Your task to perform on an android device: Show the shopping cart on amazon.com. Search for "logitech g pro" on amazon.com, select the first entry, and add it to the cart. Image 0: 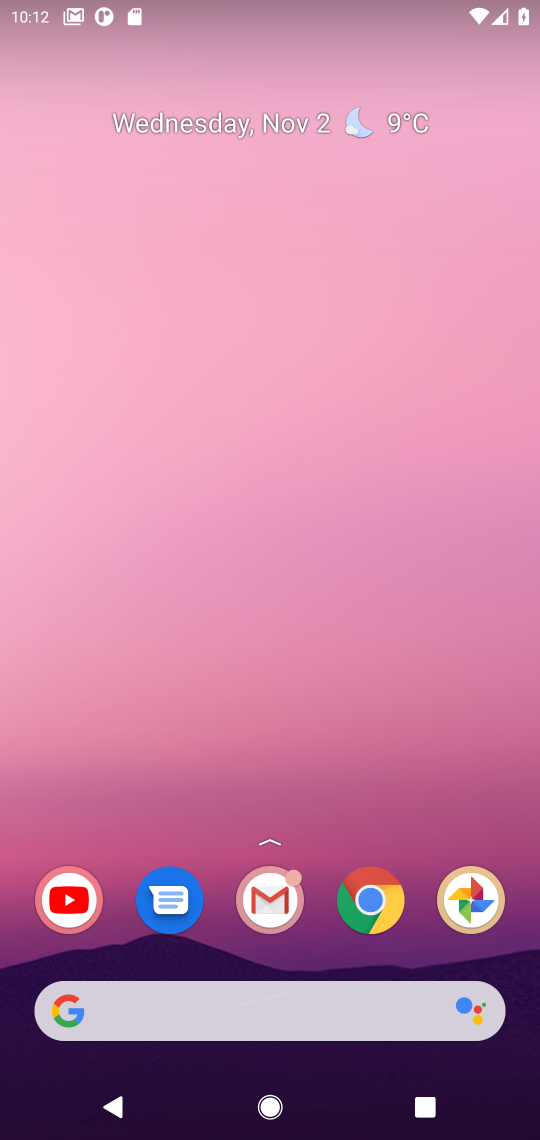
Step 0: click (356, 925)
Your task to perform on an android device: Show the shopping cart on amazon.com. Search for "logitech g pro" on amazon.com, select the first entry, and add it to the cart. Image 1: 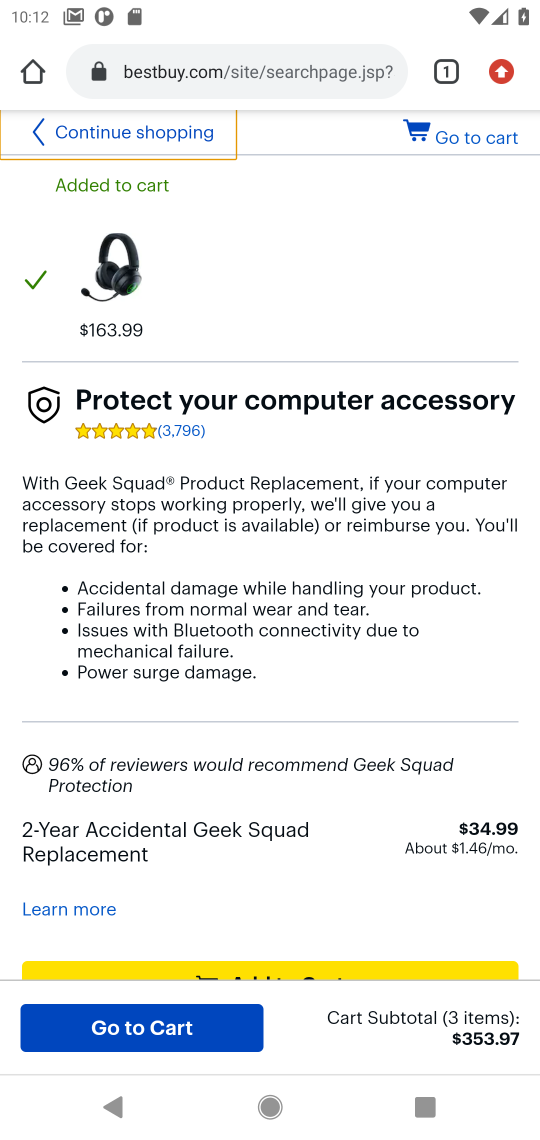
Step 1: click (152, 67)
Your task to perform on an android device: Show the shopping cart on amazon.com. Search for "logitech g pro" on amazon.com, select the first entry, and add it to the cart. Image 2: 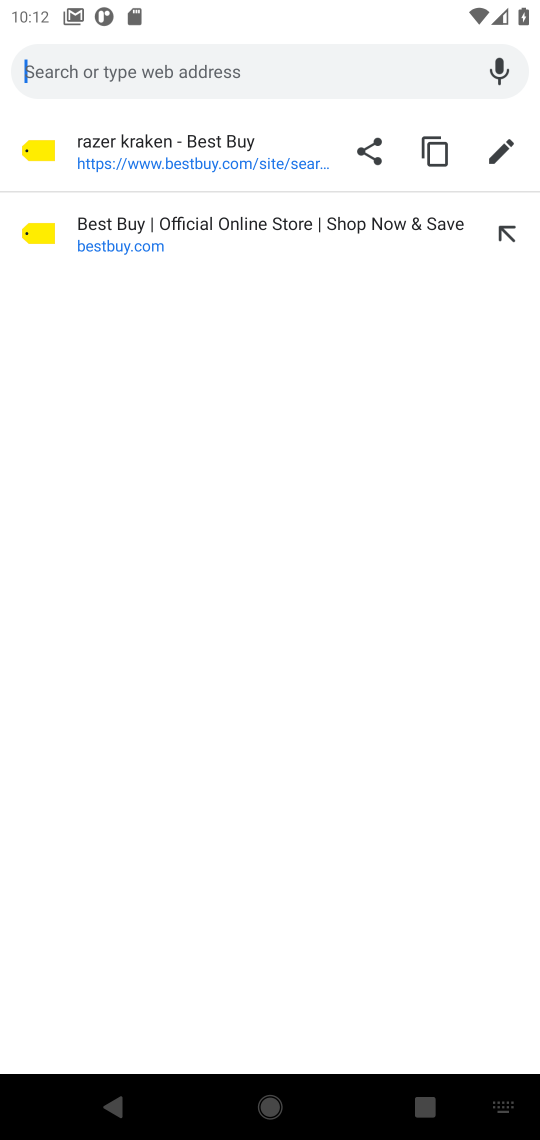
Step 2: type "amazon"
Your task to perform on an android device: Show the shopping cart on amazon.com. Search for "logitech g pro" on amazon.com, select the first entry, and add it to the cart. Image 3: 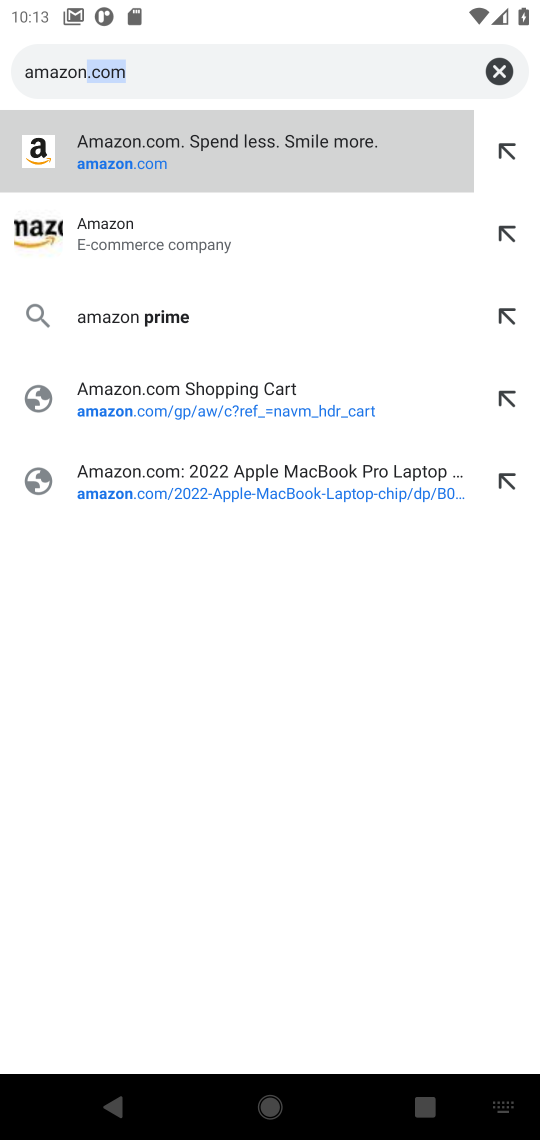
Step 3: click (182, 235)
Your task to perform on an android device: Show the shopping cart on amazon.com. Search for "logitech g pro" on amazon.com, select the first entry, and add it to the cart. Image 4: 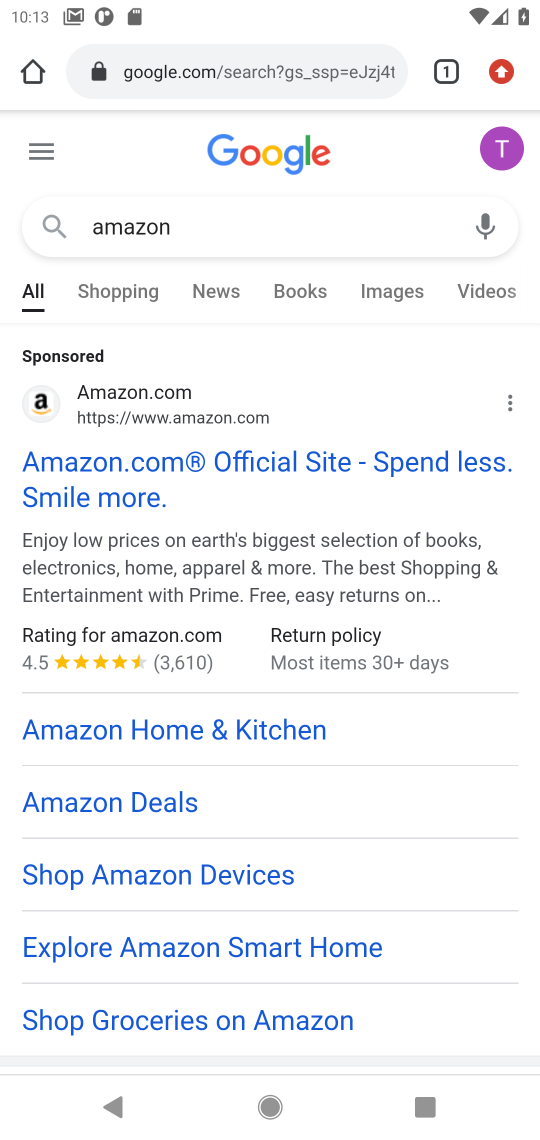
Step 4: click (203, 459)
Your task to perform on an android device: Show the shopping cart on amazon.com. Search for "logitech g pro" on amazon.com, select the first entry, and add it to the cart. Image 5: 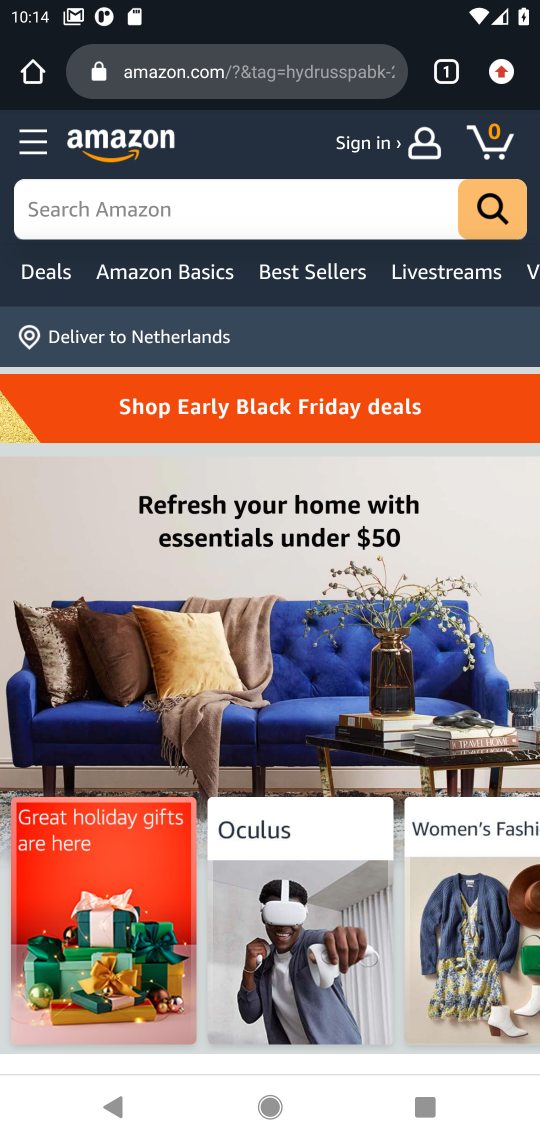
Step 5: click (502, 146)
Your task to perform on an android device: Show the shopping cart on amazon.com. Search for "logitech g pro" on amazon.com, select the first entry, and add it to the cart. Image 6: 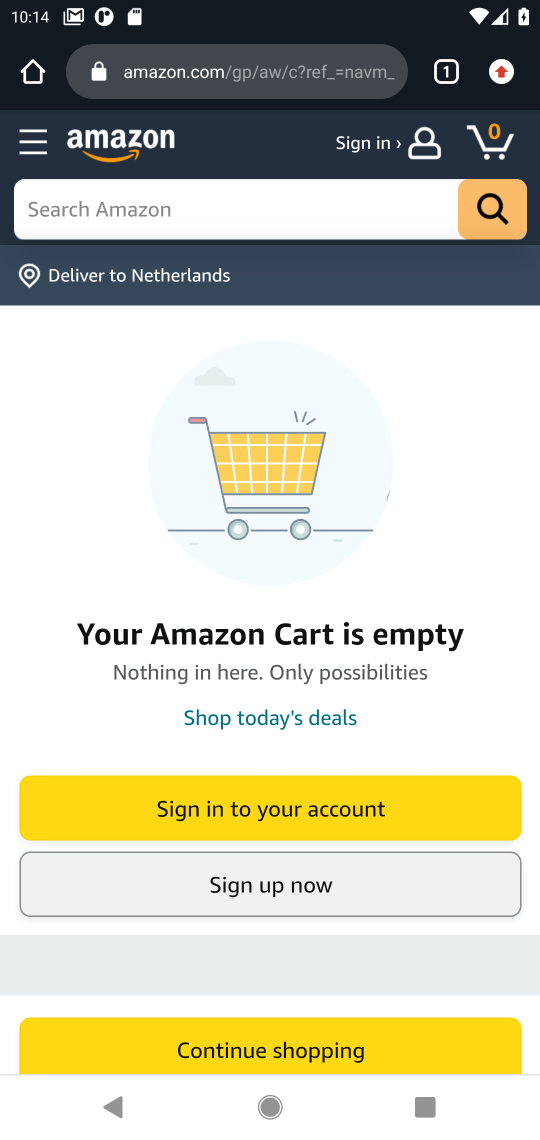
Step 6: click (86, 235)
Your task to perform on an android device: Show the shopping cart on amazon.com. Search for "logitech g pro" on amazon.com, select the first entry, and add it to the cart. Image 7: 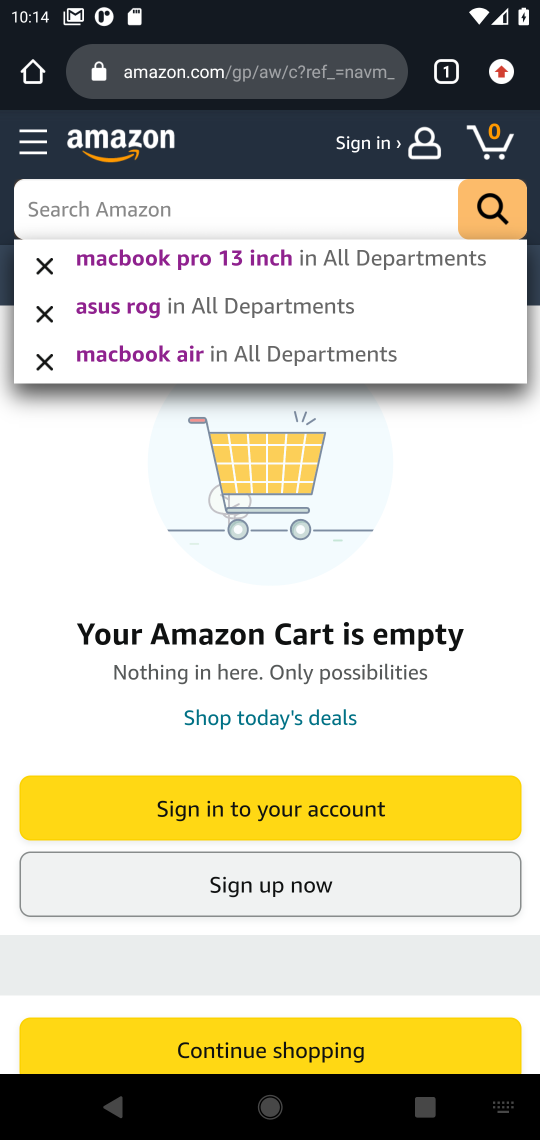
Step 7: type "logitech g pro"
Your task to perform on an android device: Show the shopping cart on amazon.com. Search for "logitech g pro" on amazon.com, select the first entry, and add it to the cart. Image 8: 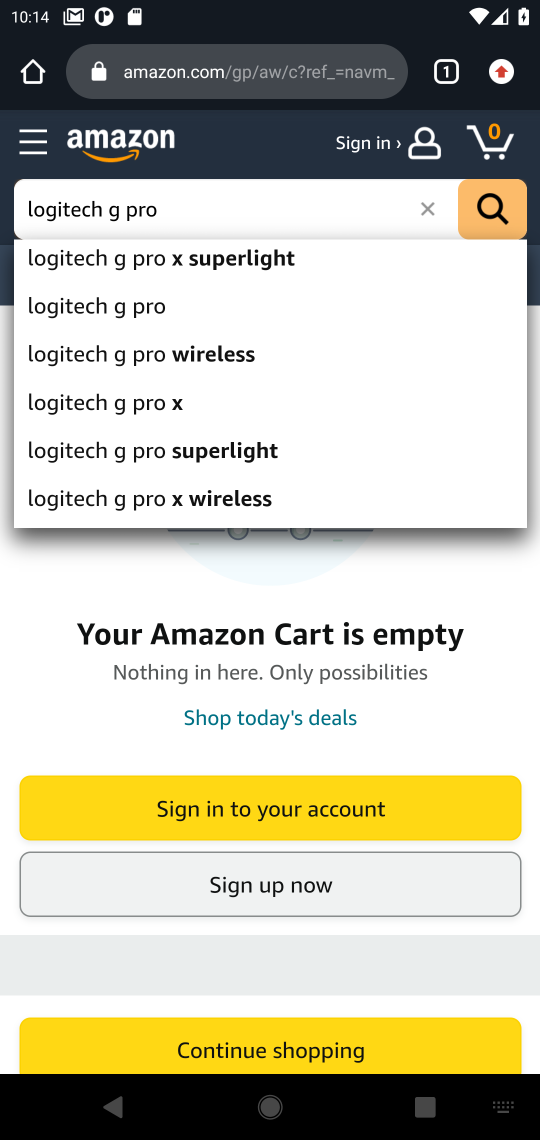
Step 8: click (502, 221)
Your task to perform on an android device: Show the shopping cart on amazon.com. Search for "logitech g pro" on amazon.com, select the first entry, and add it to the cart. Image 9: 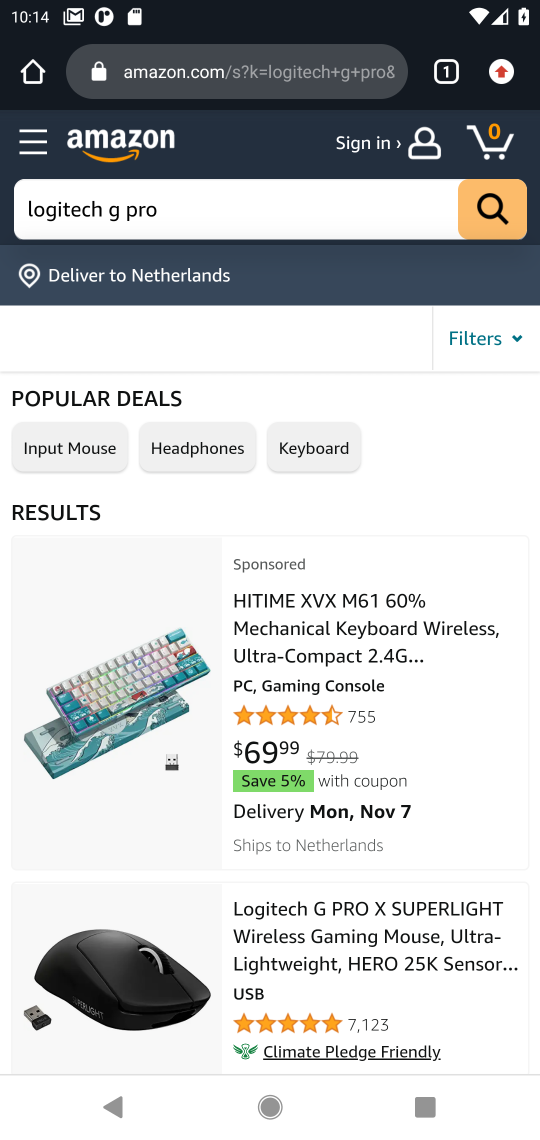
Step 9: click (301, 942)
Your task to perform on an android device: Show the shopping cart on amazon.com. Search for "logitech g pro" on amazon.com, select the first entry, and add it to the cart. Image 10: 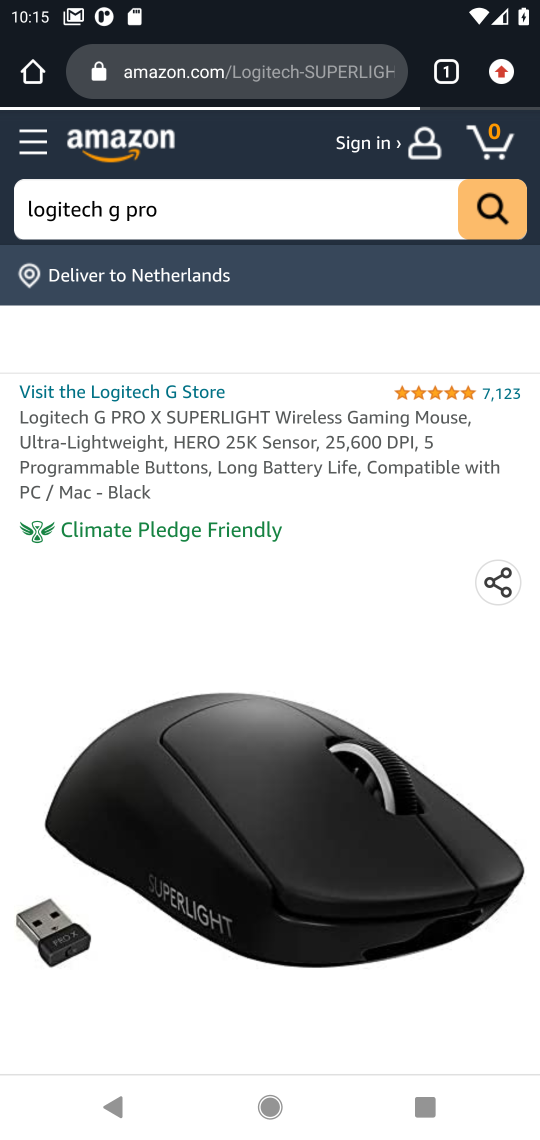
Step 10: drag from (195, 1014) to (258, 354)
Your task to perform on an android device: Show the shopping cart on amazon.com. Search for "logitech g pro" on amazon.com, select the first entry, and add it to the cart. Image 11: 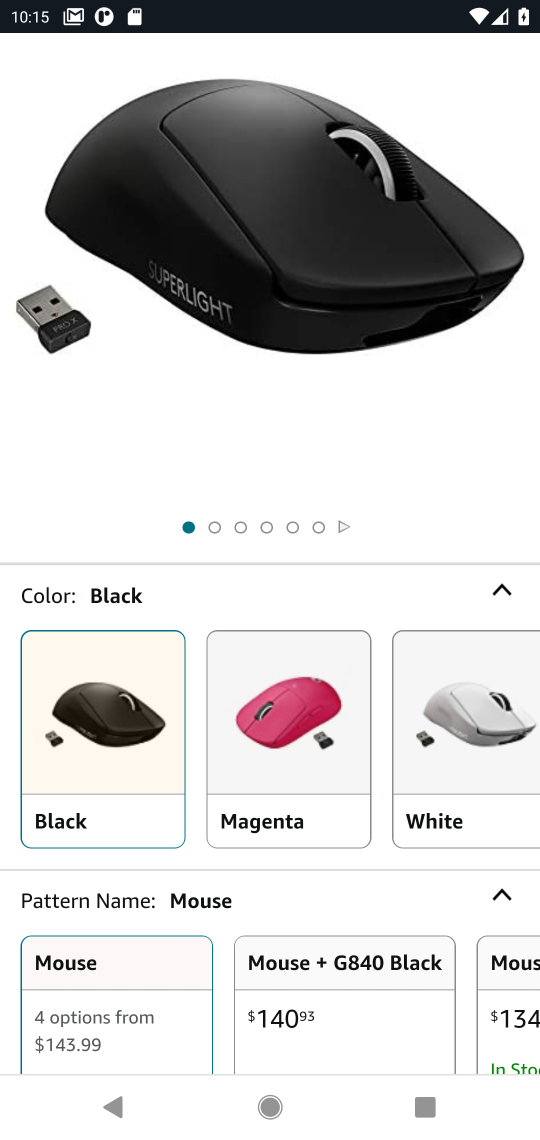
Step 11: drag from (324, 905) to (415, 178)
Your task to perform on an android device: Show the shopping cart on amazon.com. Search for "logitech g pro" on amazon.com, select the first entry, and add it to the cart. Image 12: 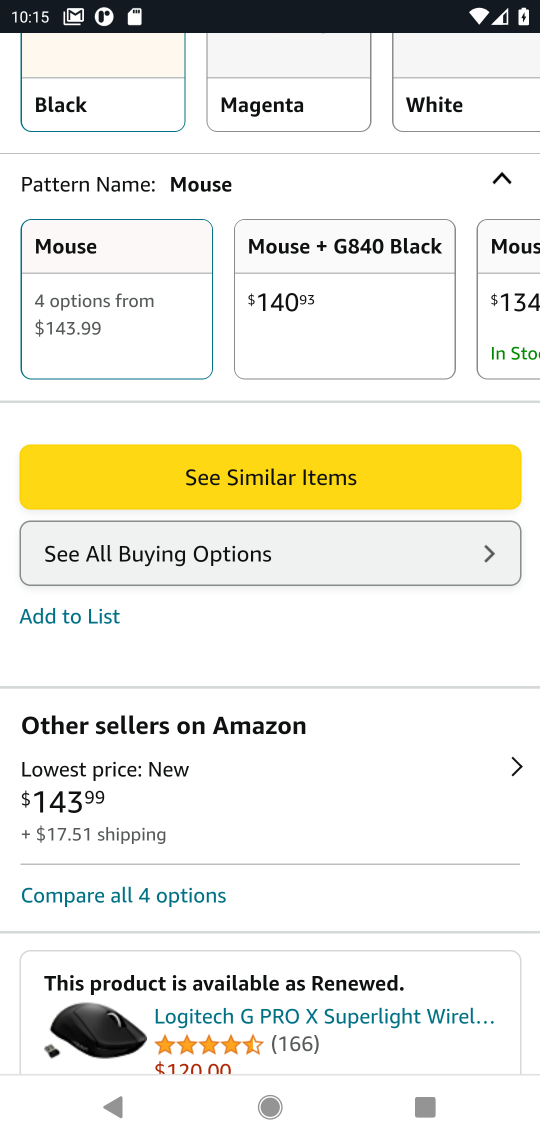
Step 12: drag from (249, 820) to (283, 188)
Your task to perform on an android device: Show the shopping cart on amazon.com. Search for "logitech g pro" on amazon.com, select the first entry, and add it to the cart. Image 13: 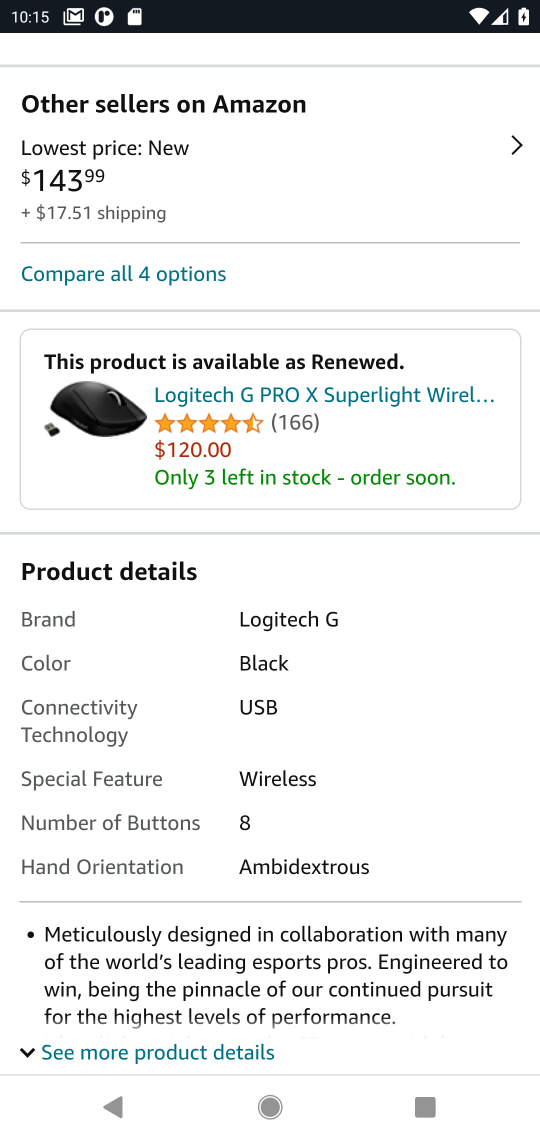
Step 13: click (230, 390)
Your task to perform on an android device: Show the shopping cart on amazon.com. Search for "logitech g pro" on amazon.com, select the first entry, and add it to the cart. Image 14: 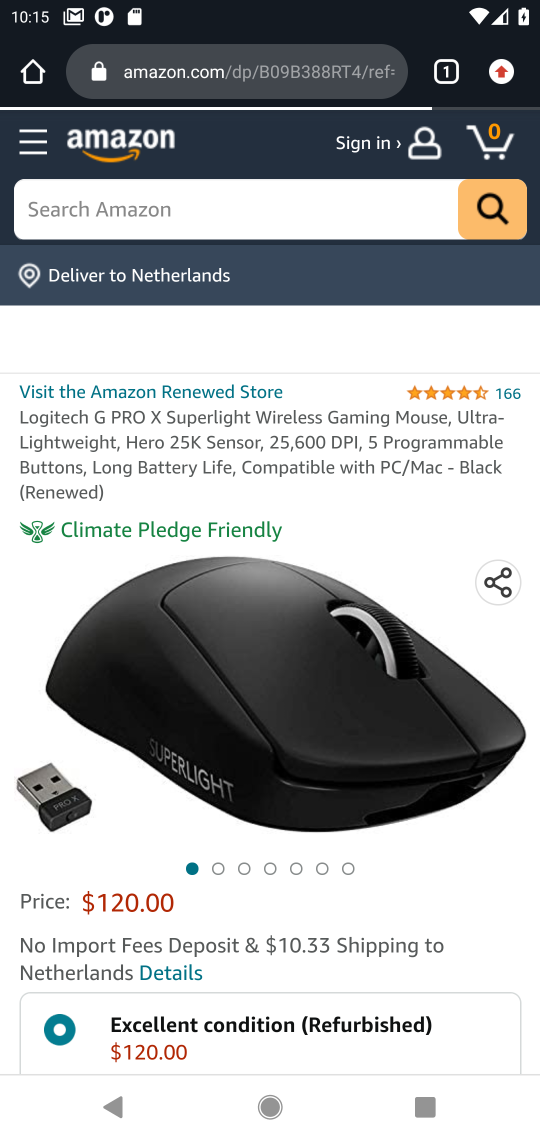
Step 14: drag from (237, 942) to (330, 208)
Your task to perform on an android device: Show the shopping cart on amazon.com. Search for "logitech g pro" on amazon.com, select the first entry, and add it to the cart. Image 15: 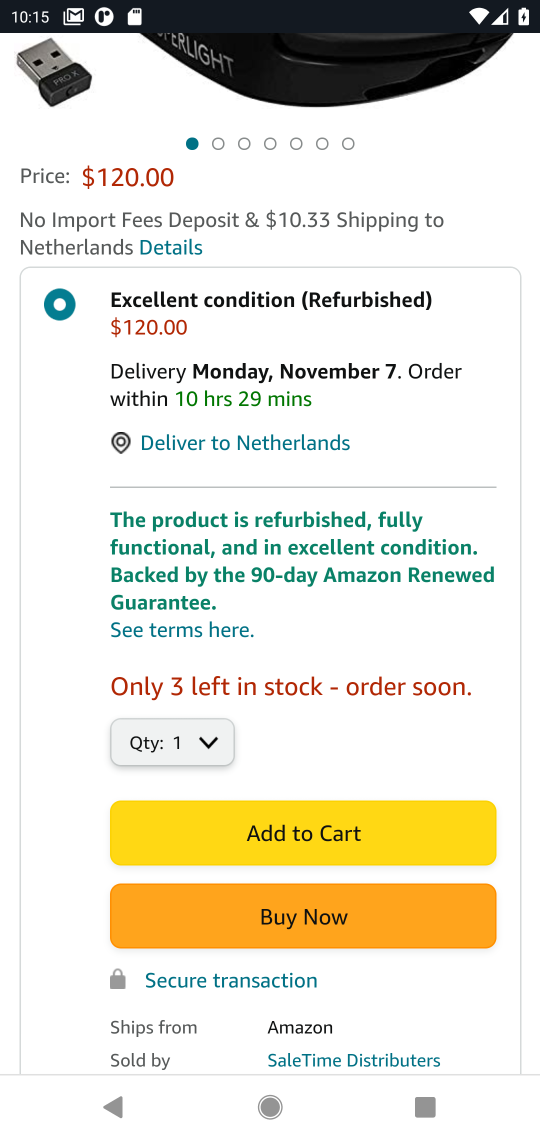
Step 15: click (354, 848)
Your task to perform on an android device: Show the shopping cart on amazon.com. Search for "logitech g pro" on amazon.com, select the first entry, and add it to the cart. Image 16: 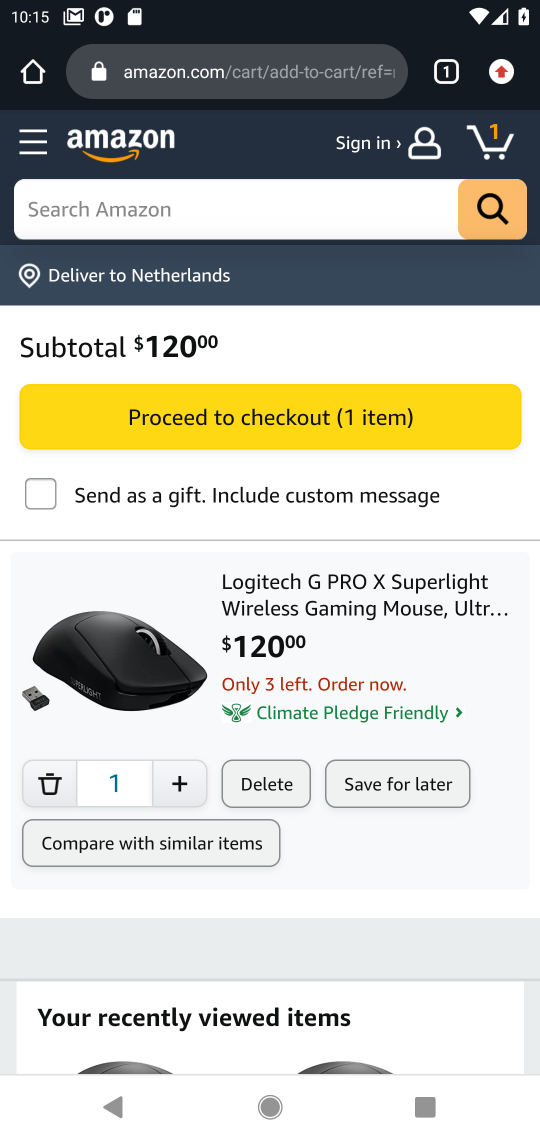
Step 16: task complete